Your task to perform on an android device: check out phone information Image 0: 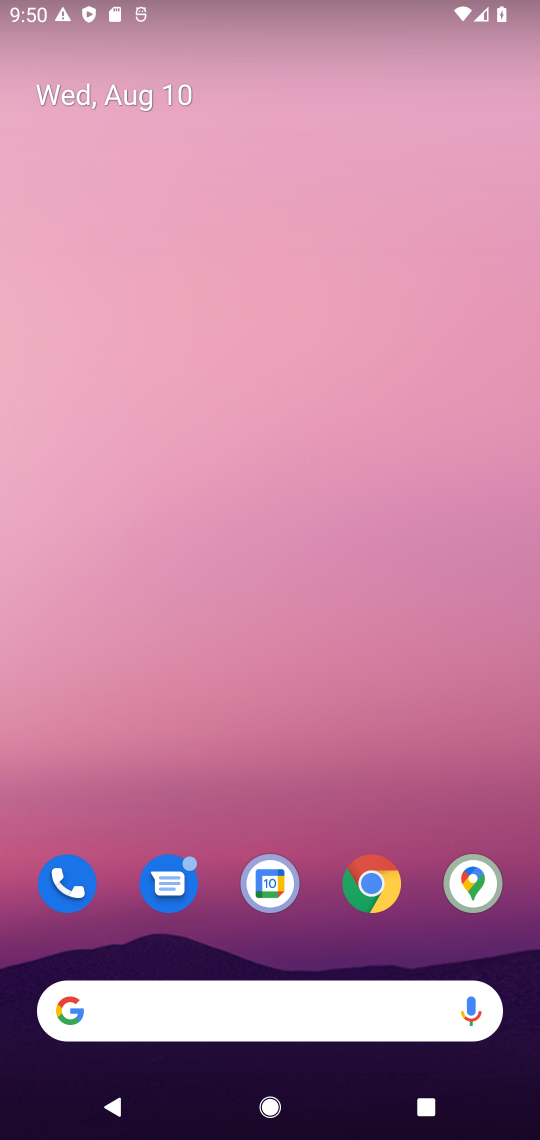
Step 0: press home button
Your task to perform on an android device: check out phone information Image 1: 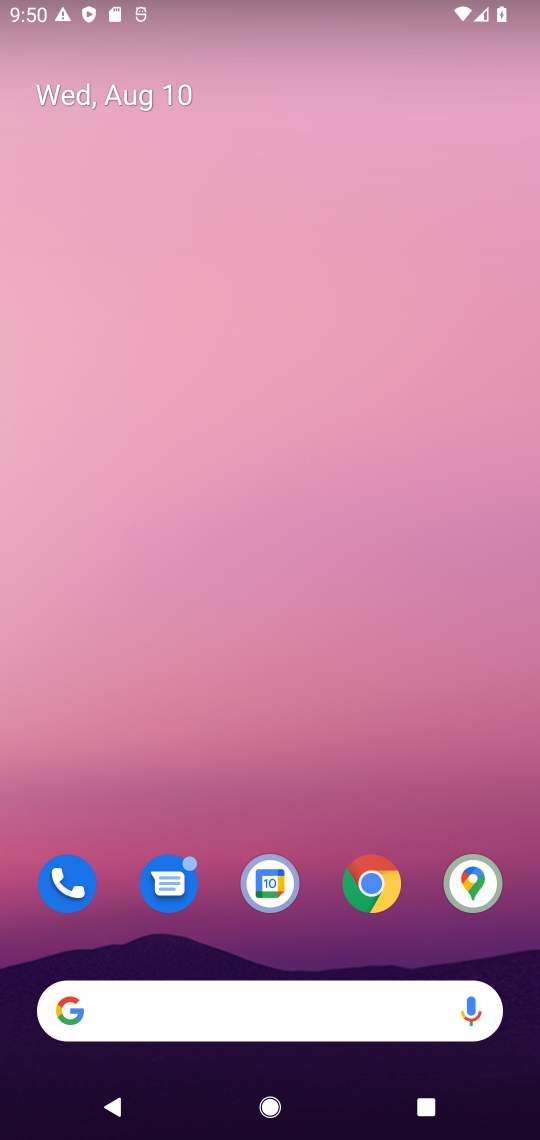
Step 1: drag from (388, 919) to (312, 405)
Your task to perform on an android device: check out phone information Image 2: 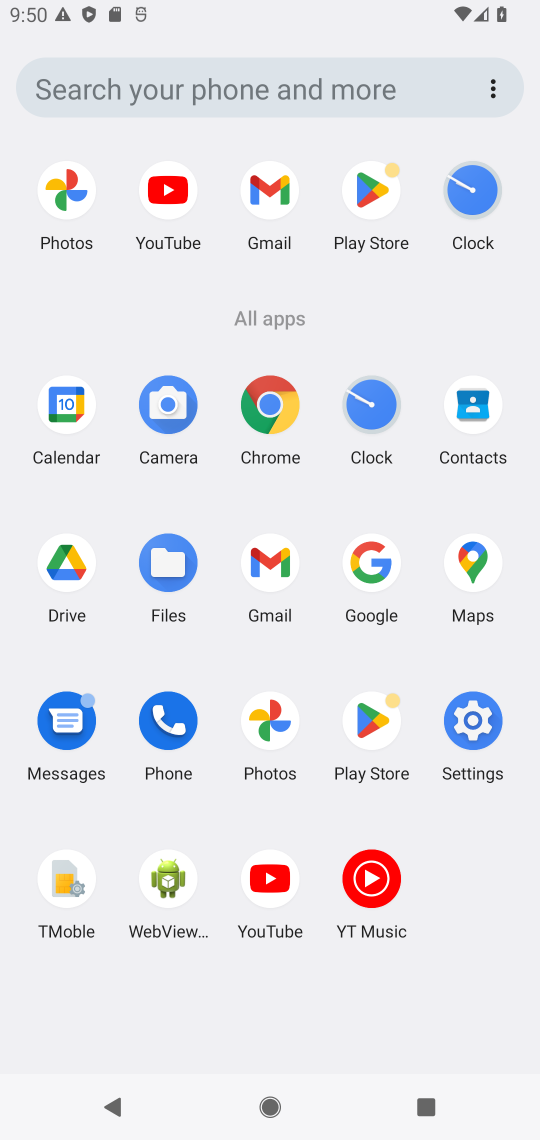
Step 2: click (152, 744)
Your task to perform on an android device: check out phone information Image 3: 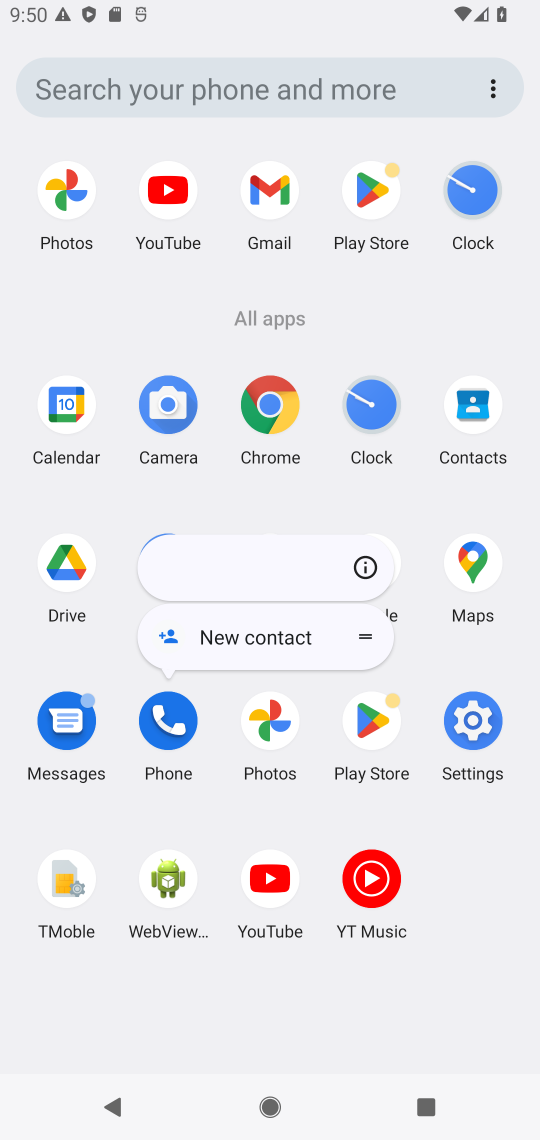
Step 3: click (374, 561)
Your task to perform on an android device: check out phone information Image 4: 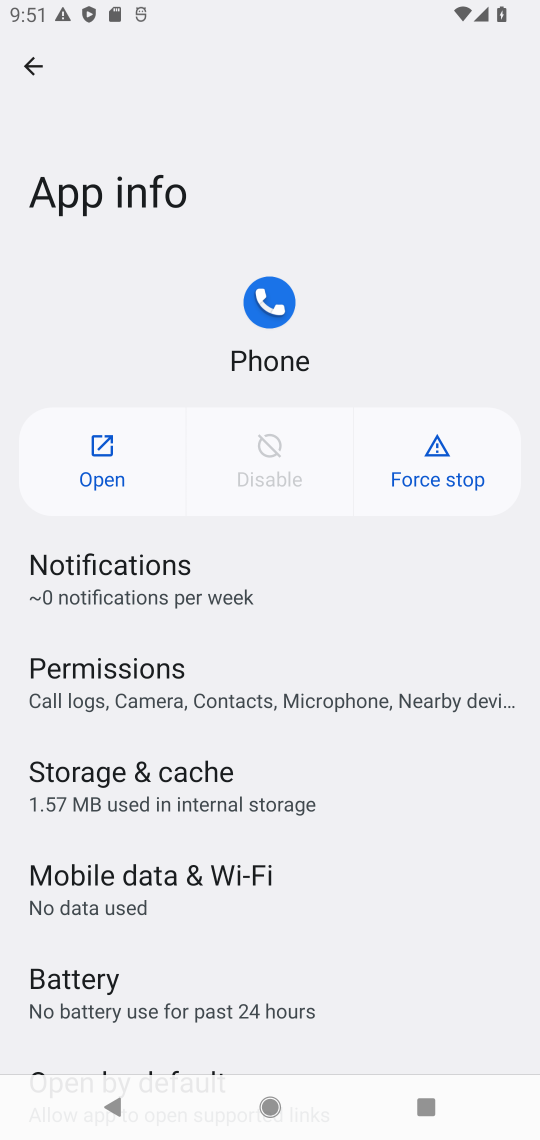
Step 4: task complete